Your task to perform on an android device: open device folders in google photos Image 0: 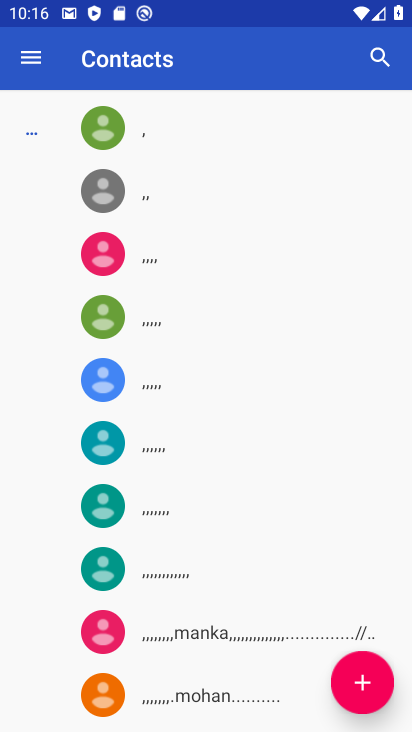
Step 0: press back button
Your task to perform on an android device: open device folders in google photos Image 1: 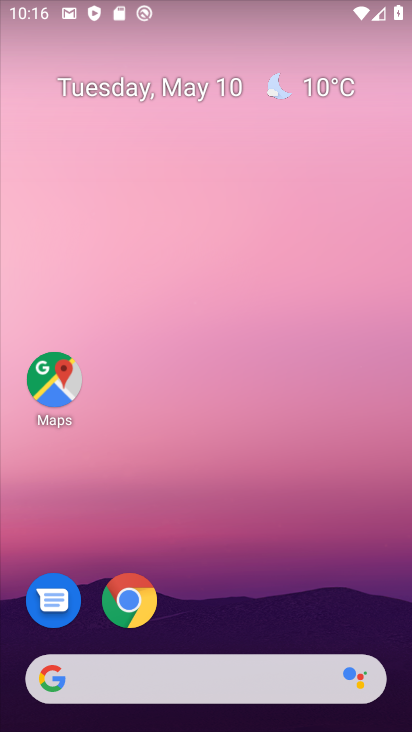
Step 1: drag from (235, 576) to (160, 3)
Your task to perform on an android device: open device folders in google photos Image 2: 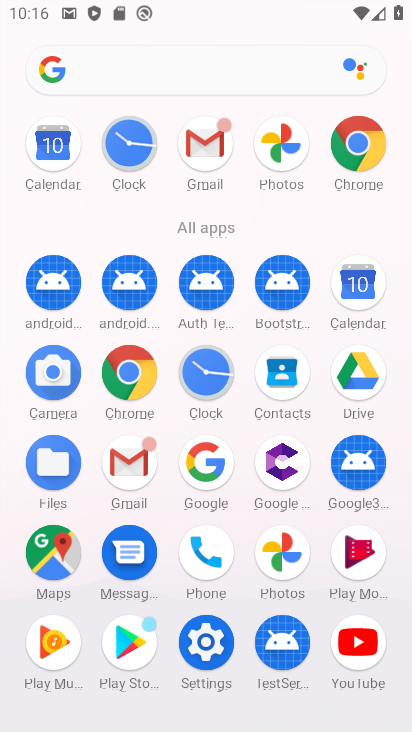
Step 2: click (285, 551)
Your task to perform on an android device: open device folders in google photos Image 3: 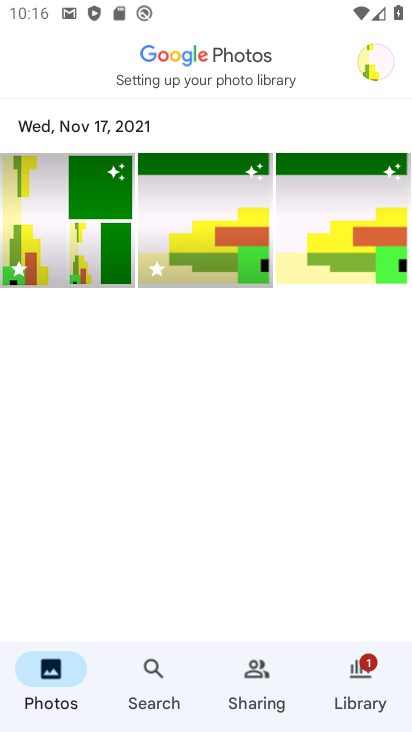
Step 3: click (371, 684)
Your task to perform on an android device: open device folders in google photos Image 4: 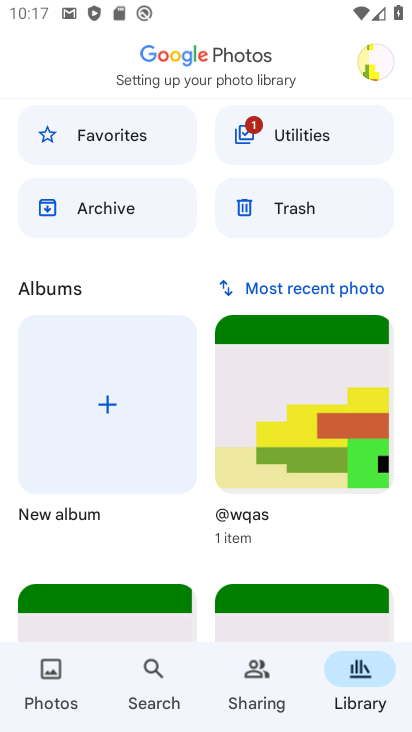
Step 4: task complete